Your task to perform on an android device: toggle translation in the chrome app Image 0: 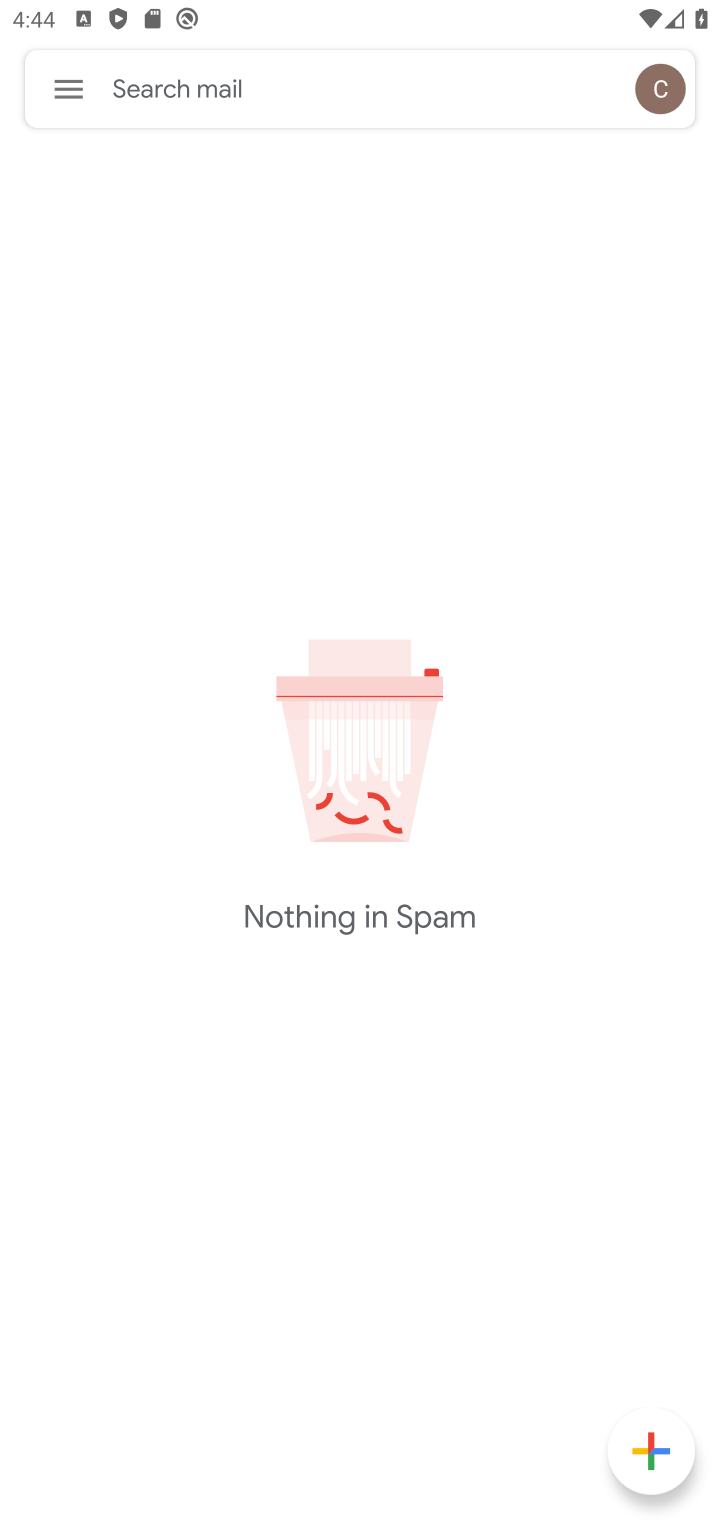
Step 0: press home button
Your task to perform on an android device: toggle translation in the chrome app Image 1: 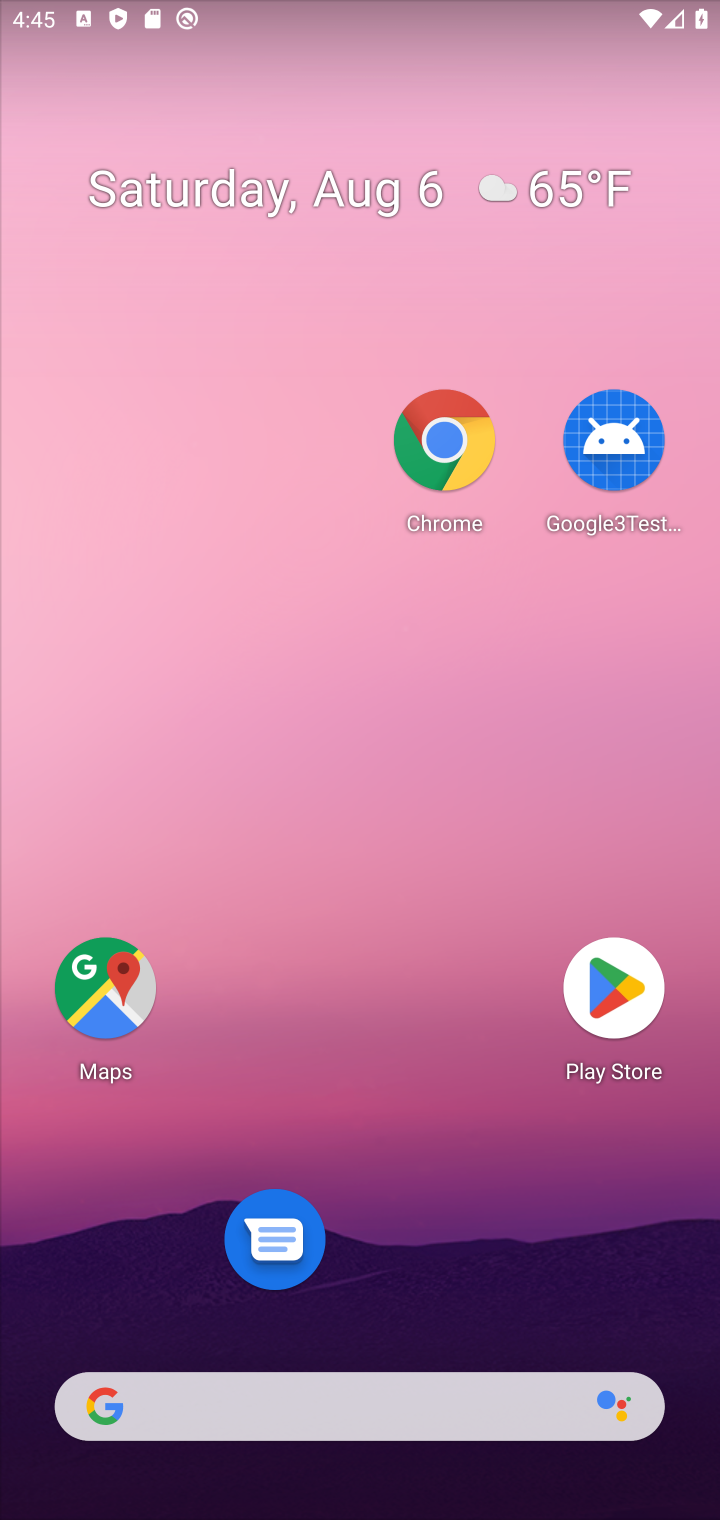
Step 1: drag from (397, 1417) to (413, 248)
Your task to perform on an android device: toggle translation in the chrome app Image 2: 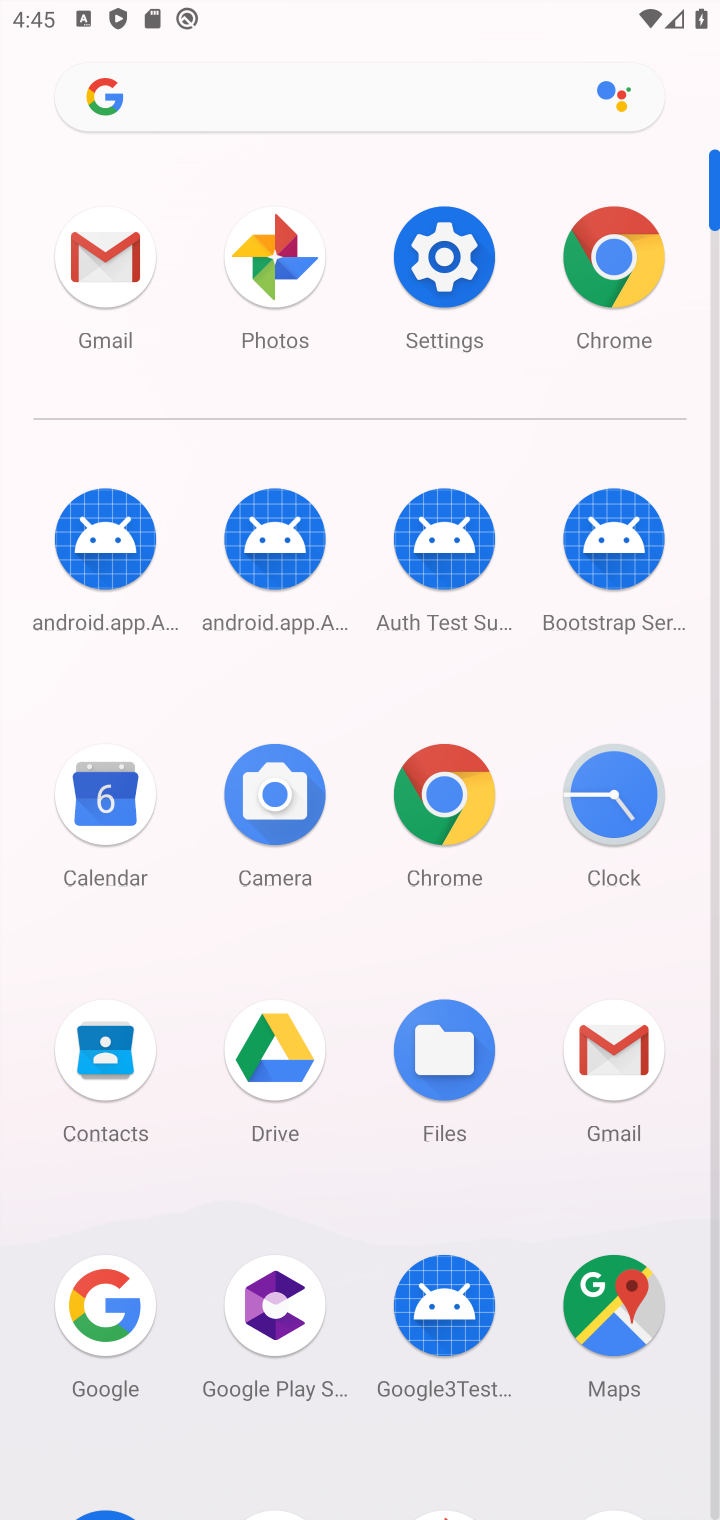
Step 2: click (430, 773)
Your task to perform on an android device: toggle translation in the chrome app Image 3: 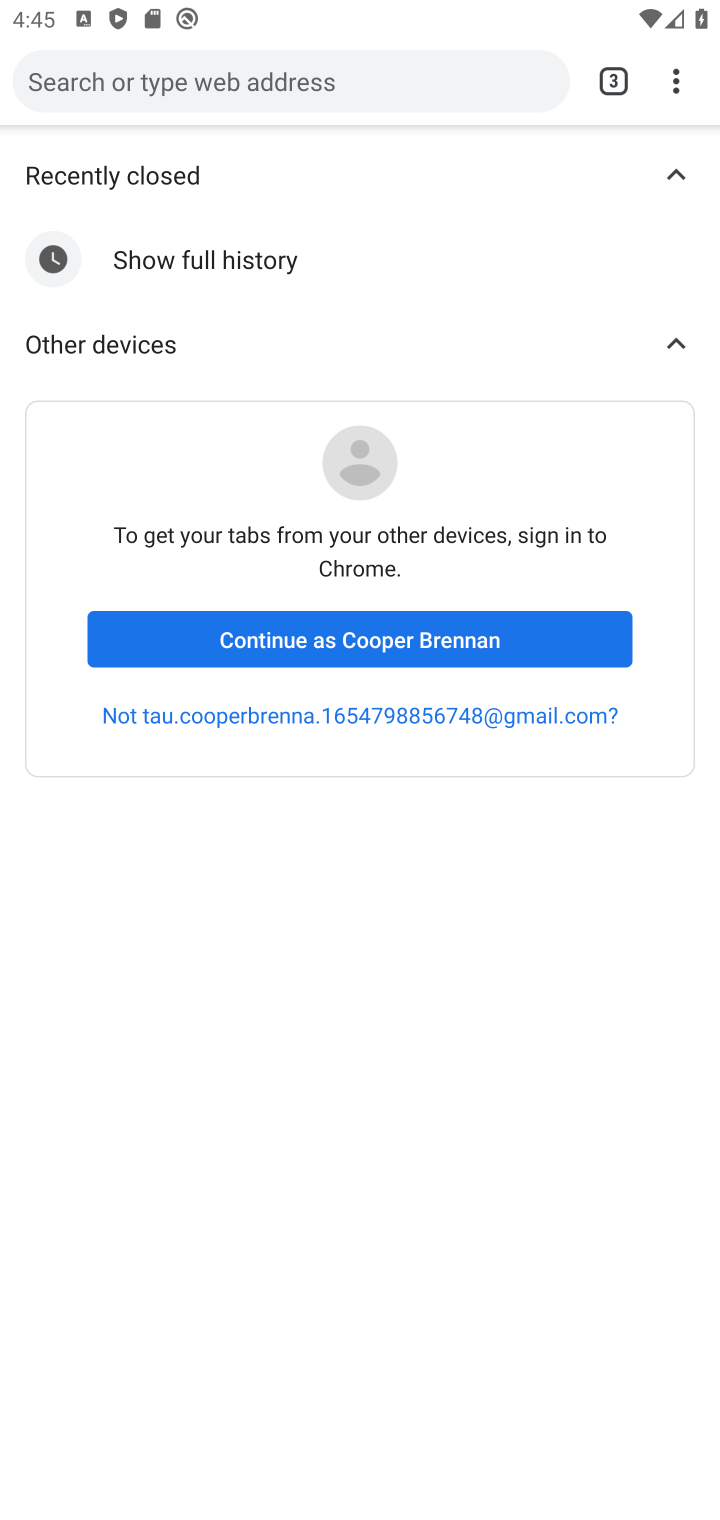
Step 3: click (672, 70)
Your task to perform on an android device: toggle translation in the chrome app Image 4: 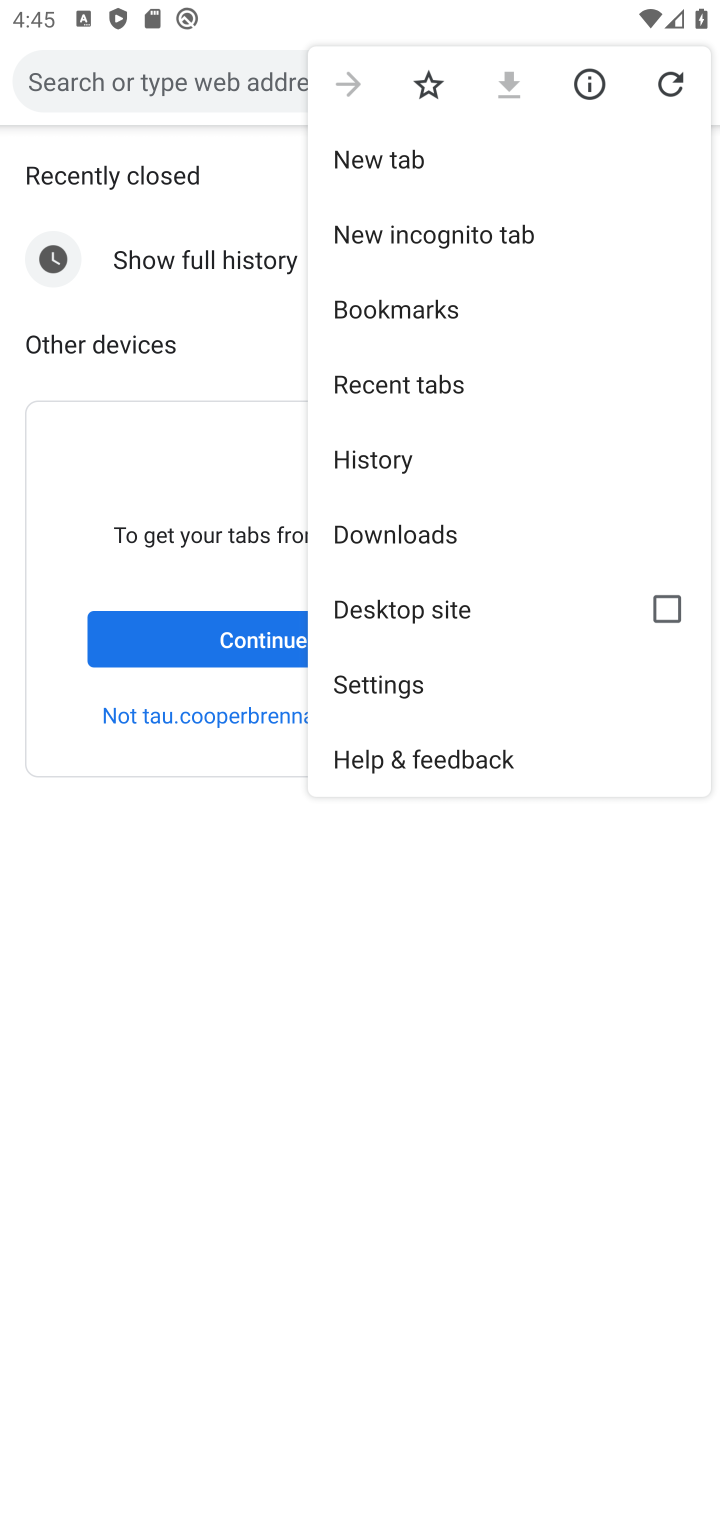
Step 4: click (412, 675)
Your task to perform on an android device: toggle translation in the chrome app Image 5: 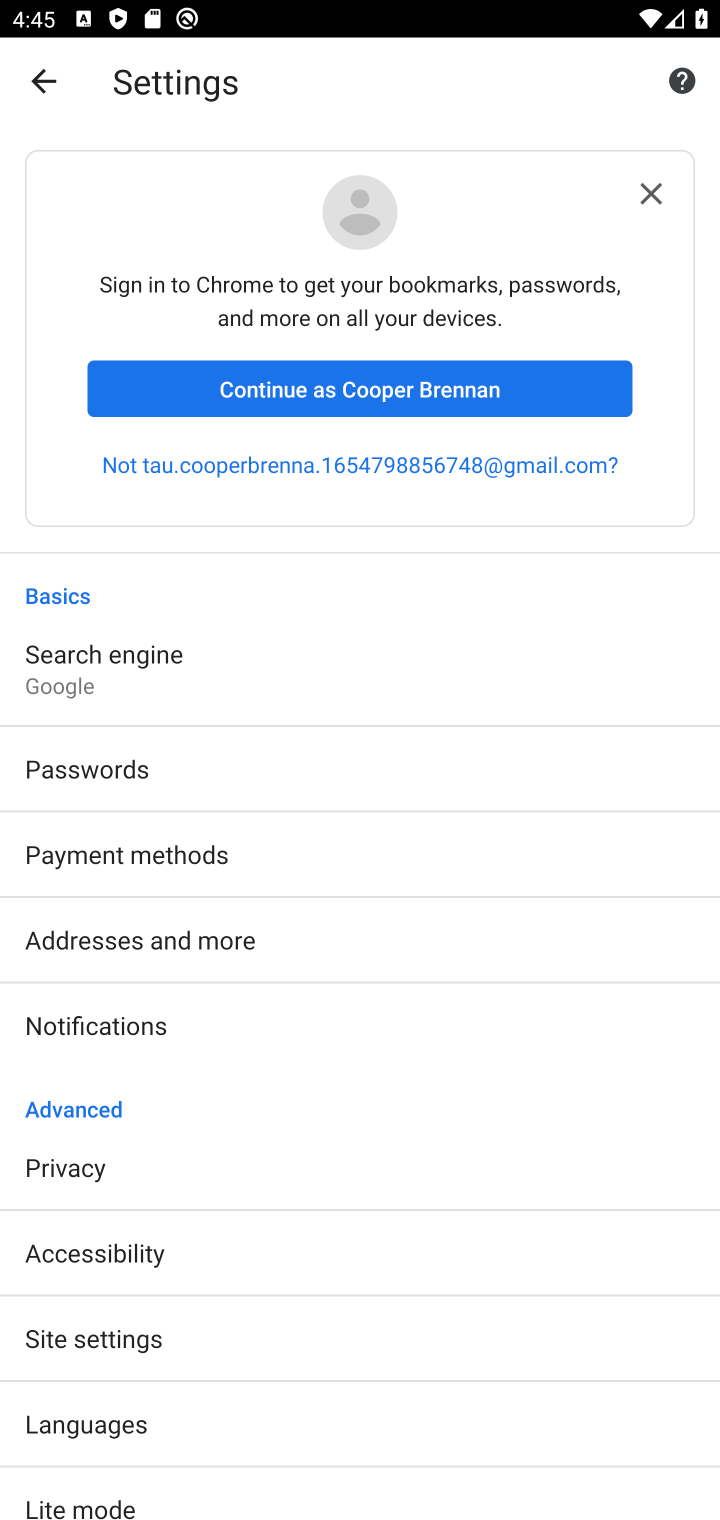
Step 5: click (119, 1413)
Your task to perform on an android device: toggle translation in the chrome app Image 6: 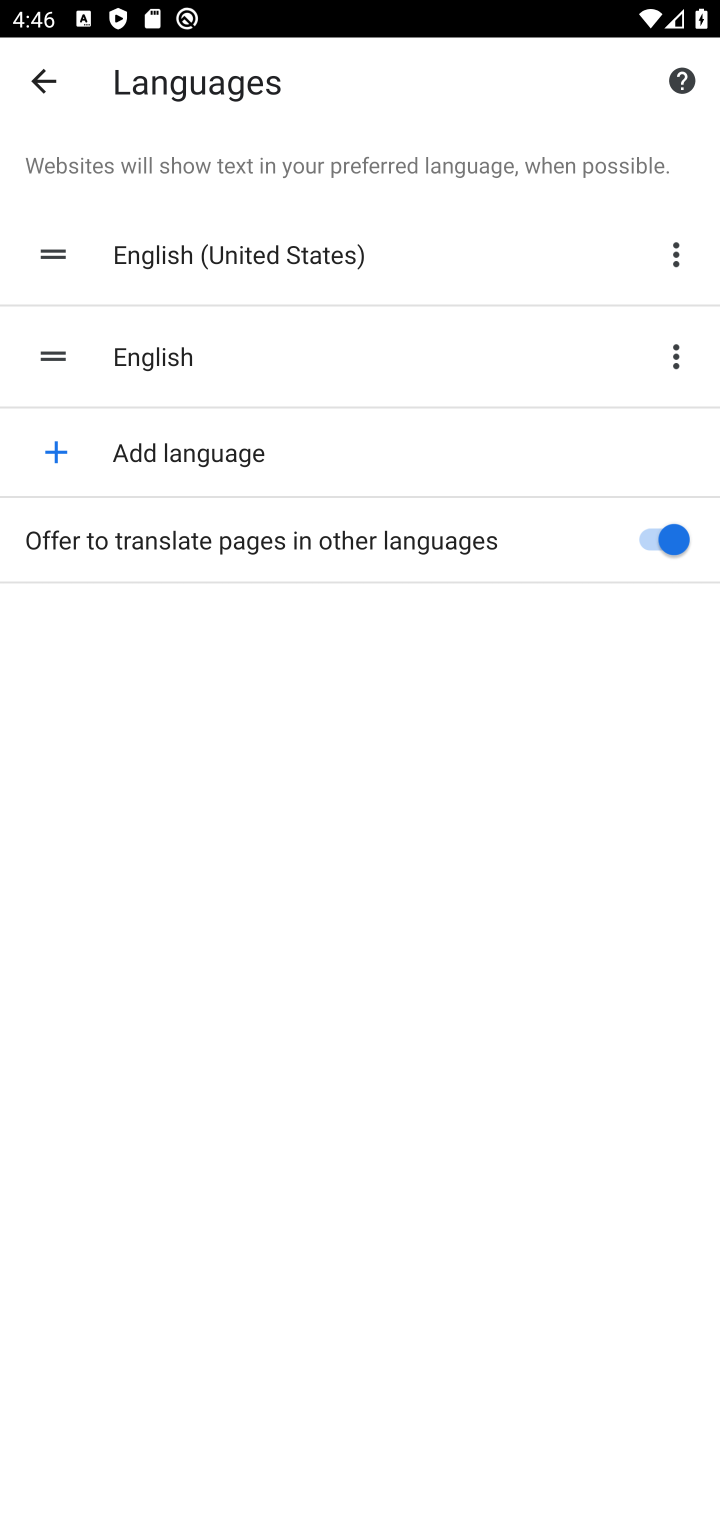
Step 6: click (638, 537)
Your task to perform on an android device: toggle translation in the chrome app Image 7: 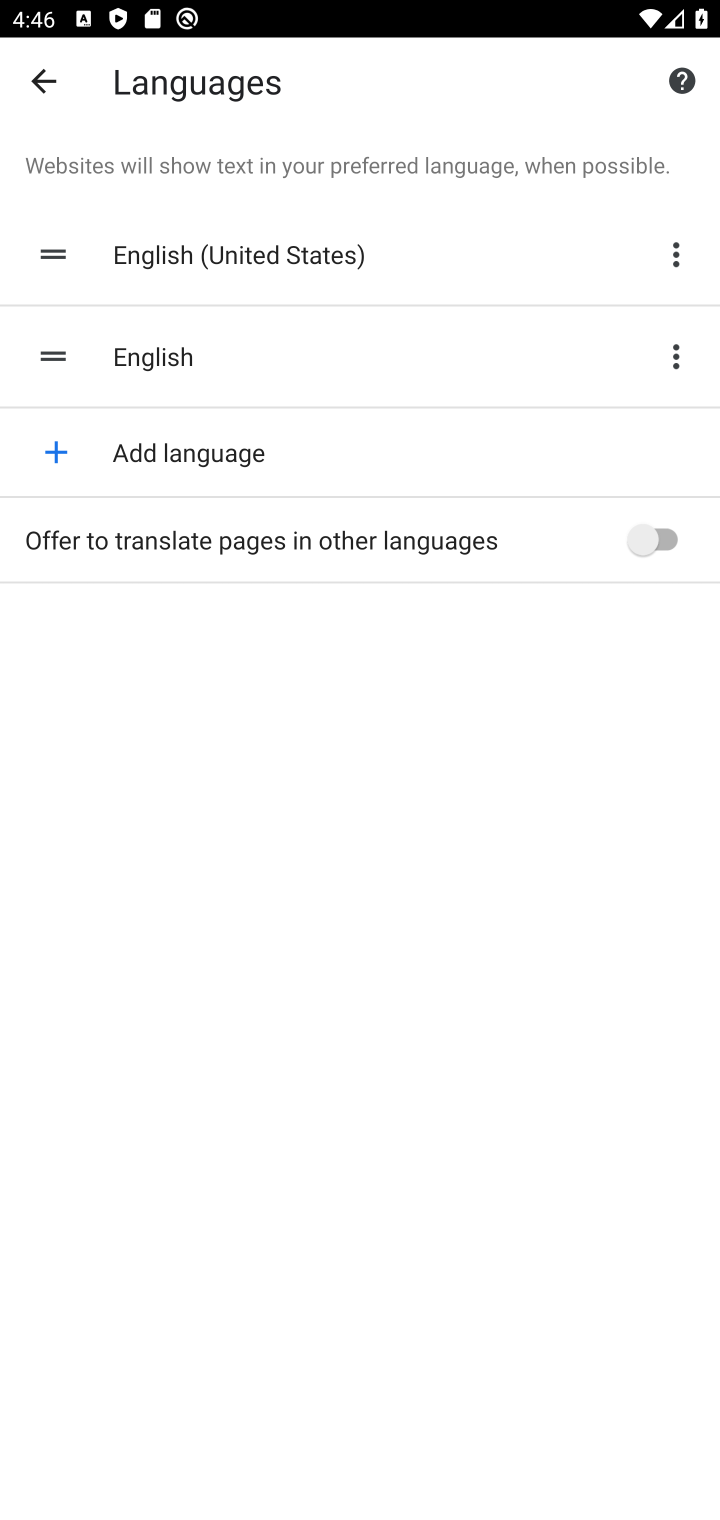
Step 7: task complete